Your task to perform on an android device: turn smart compose on in the gmail app Image 0: 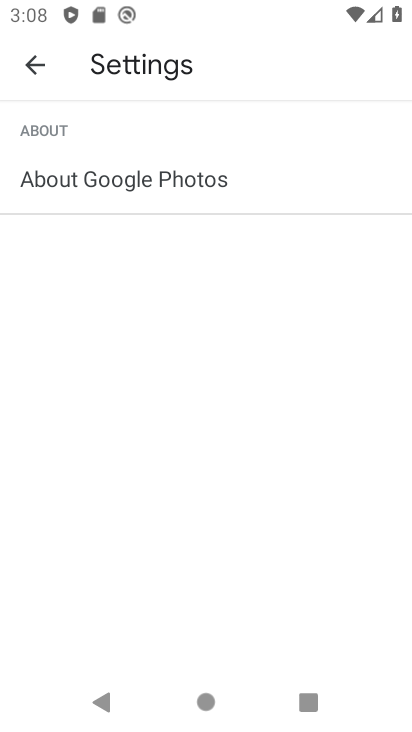
Step 0: press home button
Your task to perform on an android device: turn smart compose on in the gmail app Image 1: 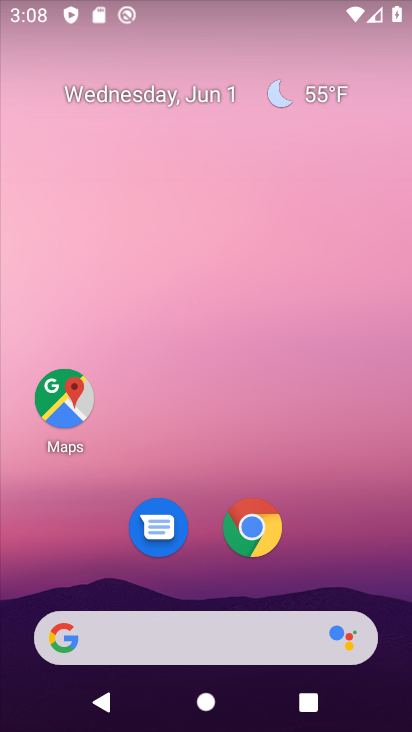
Step 1: drag from (322, 539) to (313, 125)
Your task to perform on an android device: turn smart compose on in the gmail app Image 2: 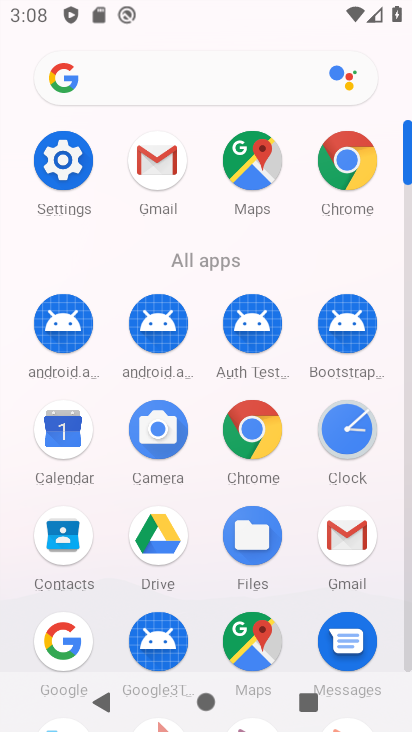
Step 2: click (161, 173)
Your task to perform on an android device: turn smart compose on in the gmail app Image 3: 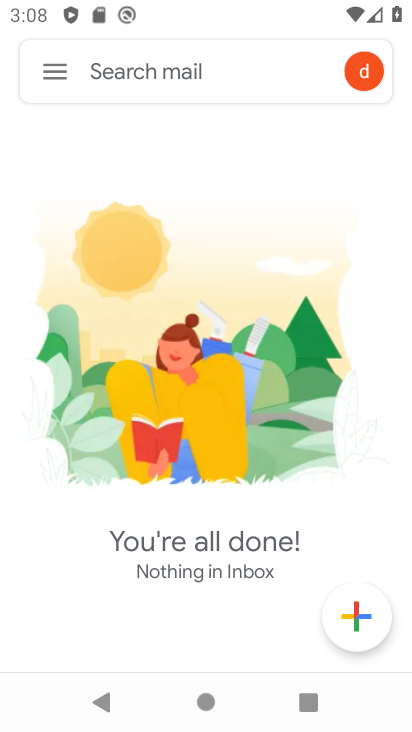
Step 3: click (38, 71)
Your task to perform on an android device: turn smart compose on in the gmail app Image 4: 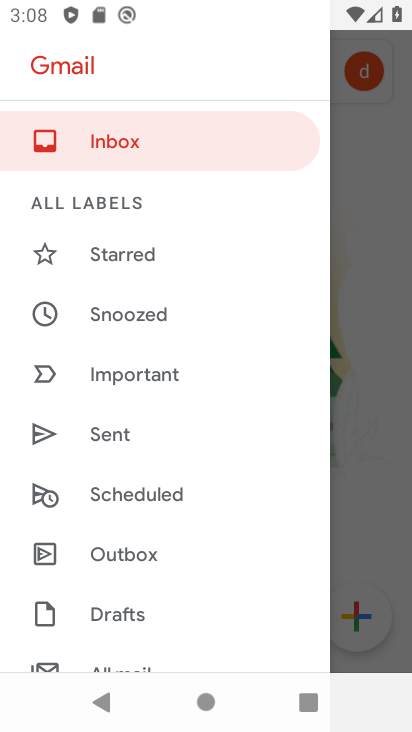
Step 4: drag from (198, 635) to (188, 262)
Your task to perform on an android device: turn smart compose on in the gmail app Image 5: 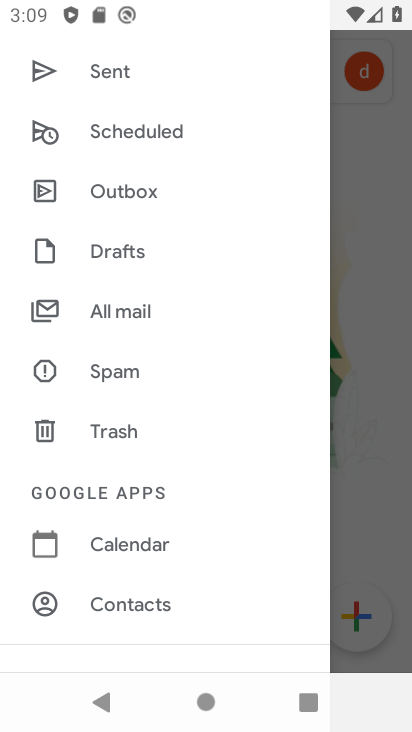
Step 5: drag from (155, 573) to (123, 297)
Your task to perform on an android device: turn smart compose on in the gmail app Image 6: 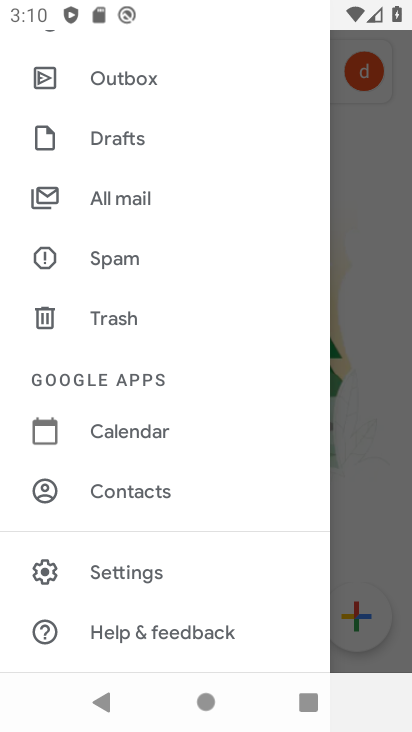
Step 6: click (132, 582)
Your task to perform on an android device: turn smart compose on in the gmail app Image 7: 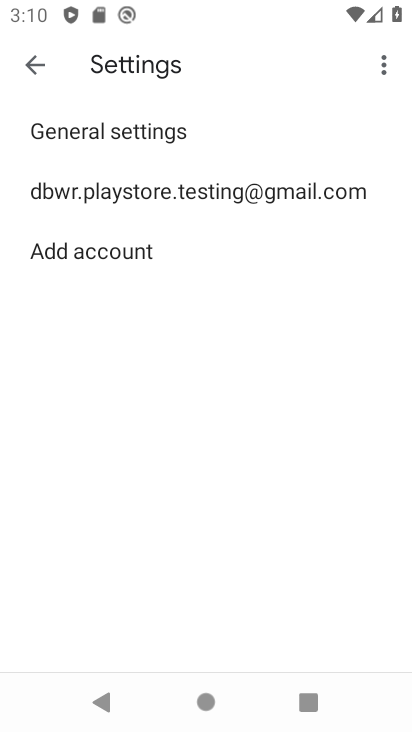
Step 7: click (316, 192)
Your task to perform on an android device: turn smart compose on in the gmail app Image 8: 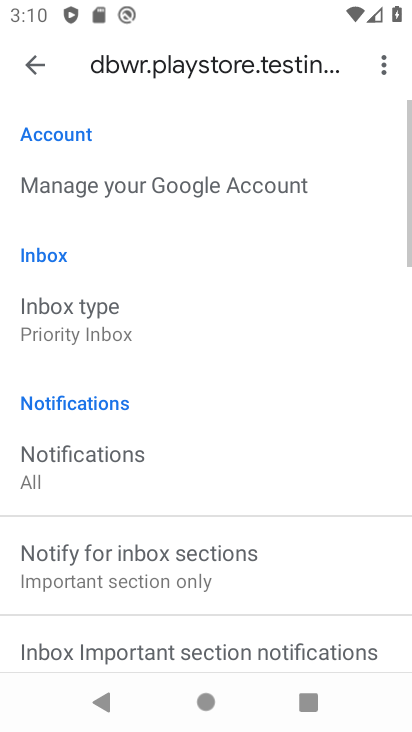
Step 8: task complete